Your task to perform on an android device: clear all cookies in the chrome app Image 0: 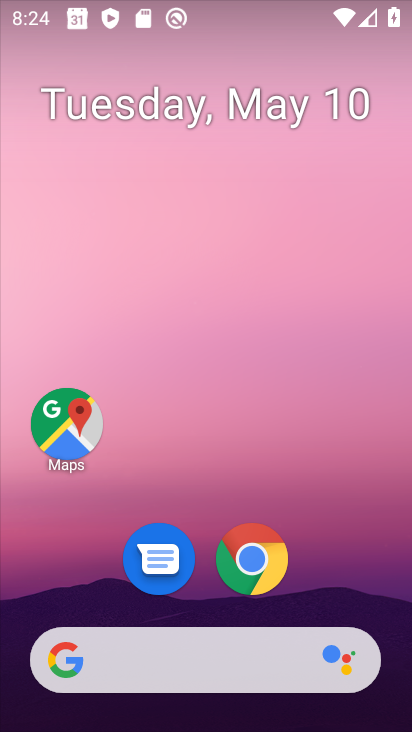
Step 0: drag from (331, 557) to (197, 52)
Your task to perform on an android device: clear all cookies in the chrome app Image 1: 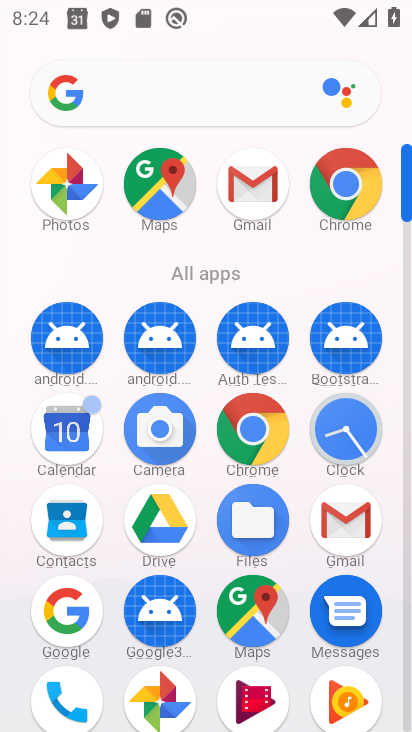
Step 1: drag from (7, 627) to (0, 301)
Your task to perform on an android device: clear all cookies in the chrome app Image 2: 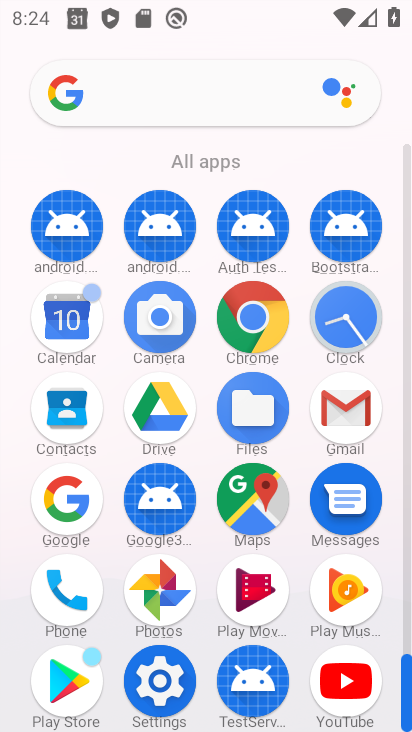
Step 2: click (251, 311)
Your task to perform on an android device: clear all cookies in the chrome app Image 3: 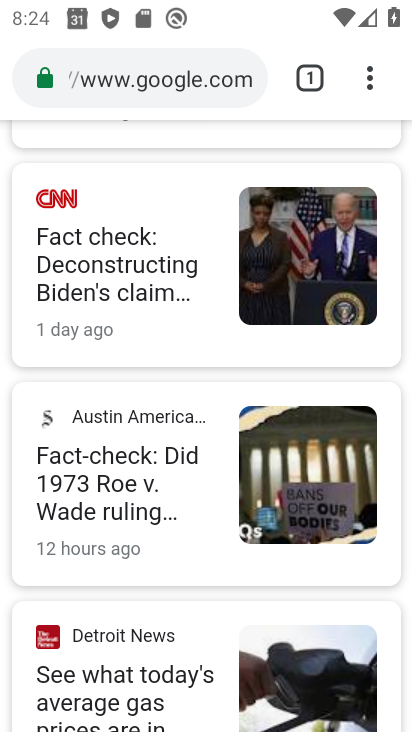
Step 3: drag from (368, 81) to (97, 437)
Your task to perform on an android device: clear all cookies in the chrome app Image 4: 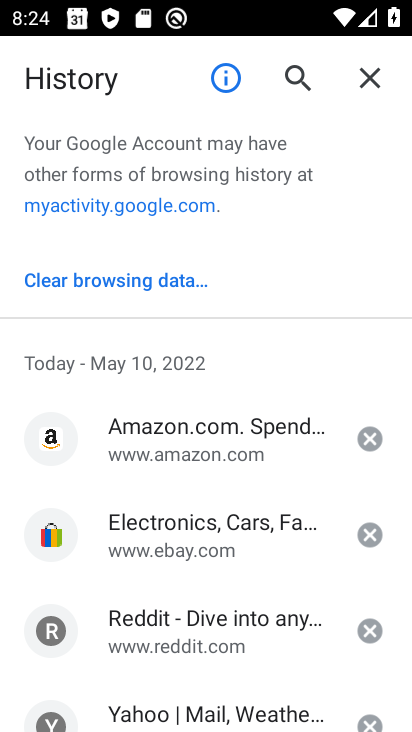
Step 4: click (134, 274)
Your task to perform on an android device: clear all cookies in the chrome app Image 5: 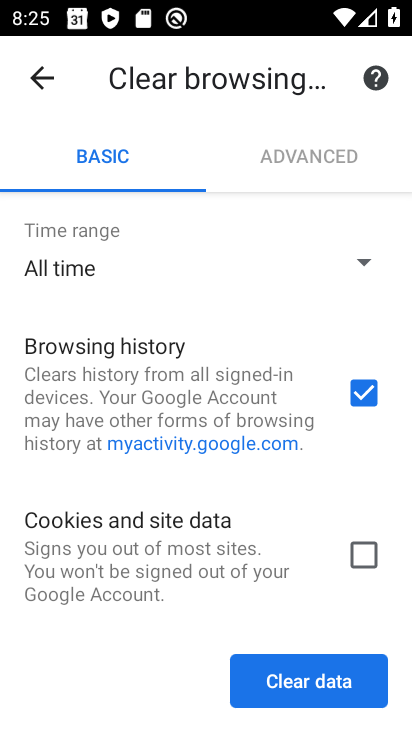
Step 5: drag from (214, 554) to (223, 223)
Your task to perform on an android device: clear all cookies in the chrome app Image 6: 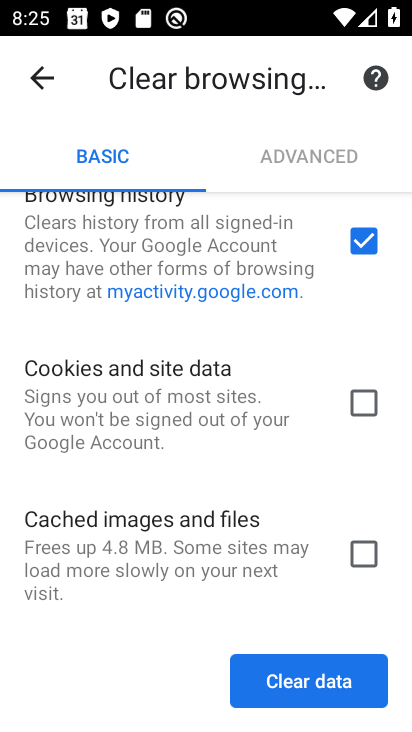
Step 6: drag from (169, 285) to (170, 337)
Your task to perform on an android device: clear all cookies in the chrome app Image 7: 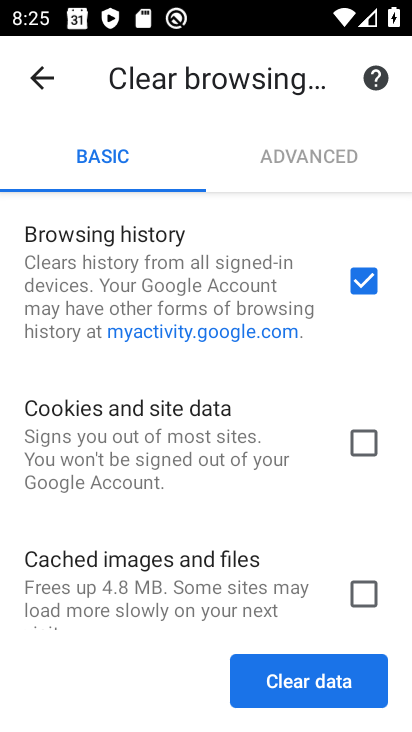
Step 7: click (350, 443)
Your task to perform on an android device: clear all cookies in the chrome app Image 8: 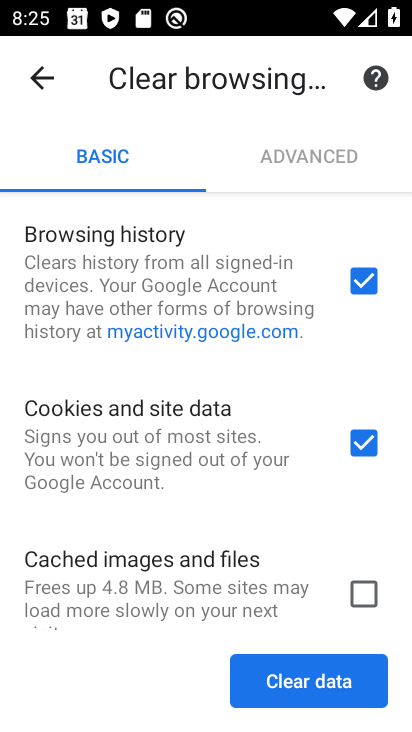
Step 8: click (355, 281)
Your task to perform on an android device: clear all cookies in the chrome app Image 9: 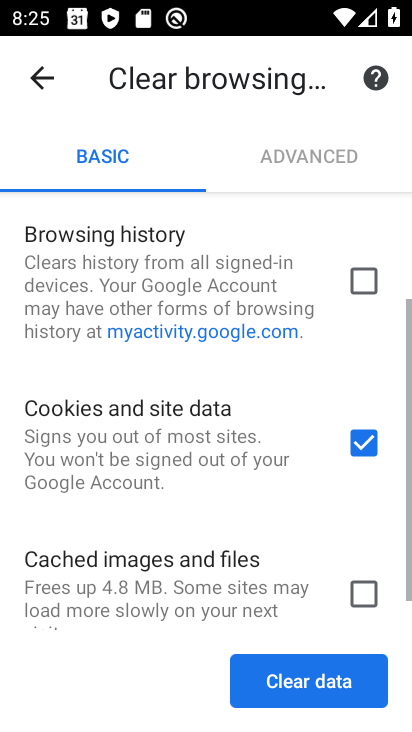
Step 9: click (315, 667)
Your task to perform on an android device: clear all cookies in the chrome app Image 10: 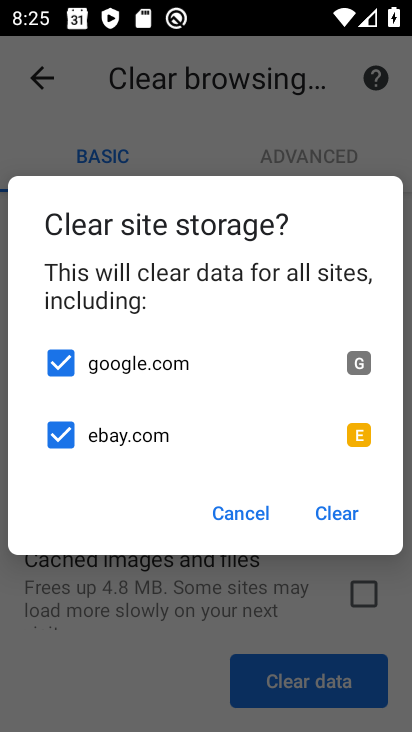
Step 10: click (337, 519)
Your task to perform on an android device: clear all cookies in the chrome app Image 11: 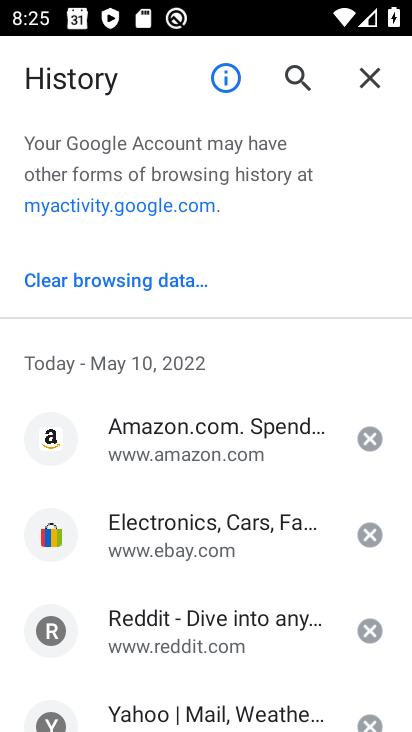
Step 11: task complete